Your task to perform on an android device: Turn on the flashlight Image 0: 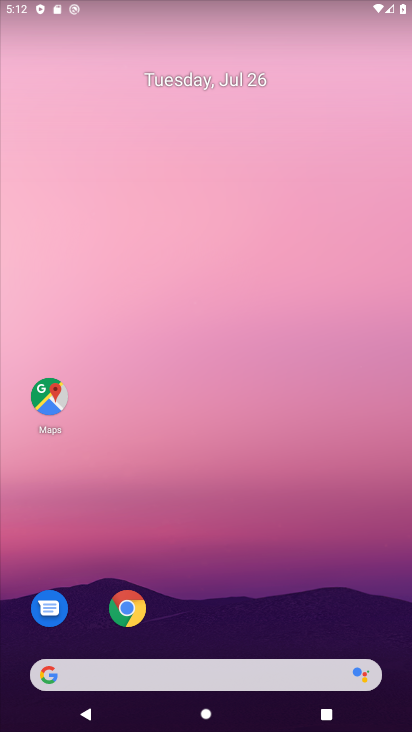
Step 0: press home button
Your task to perform on an android device: Turn on the flashlight Image 1: 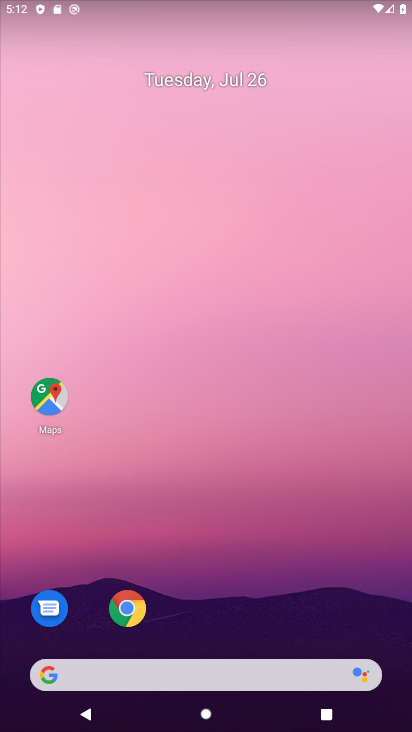
Step 1: task complete